Your task to perform on an android device: delete browsing data in the chrome app Image 0: 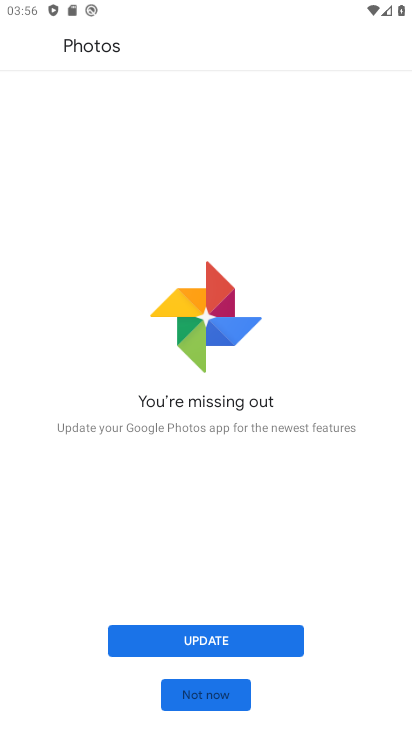
Step 0: press home button
Your task to perform on an android device: delete browsing data in the chrome app Image 1: 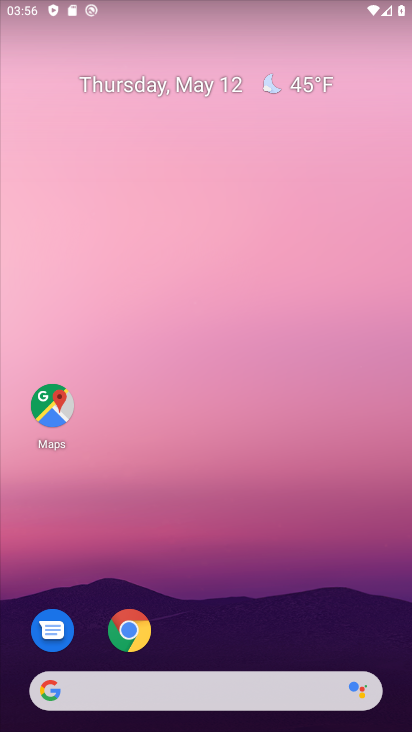
Step 1: drag from (234, 619) to (228, 159)
Your task to perform on an android device: delete browsing data in the chrome app Image 2: 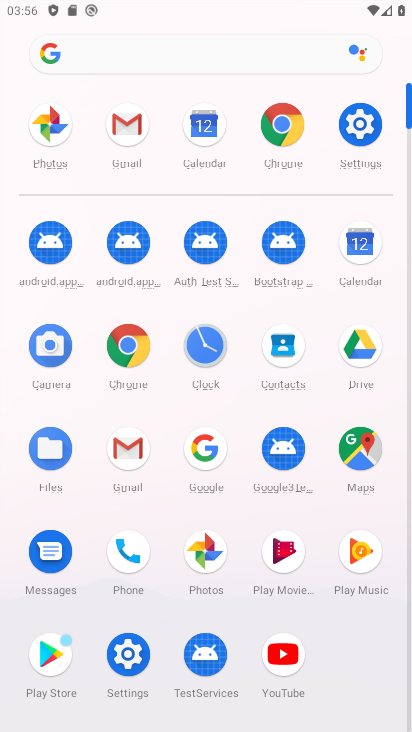
Step 2: click (128, 338)
Your task to perform on an android device: delete browsing data in the chrome app Image 3: 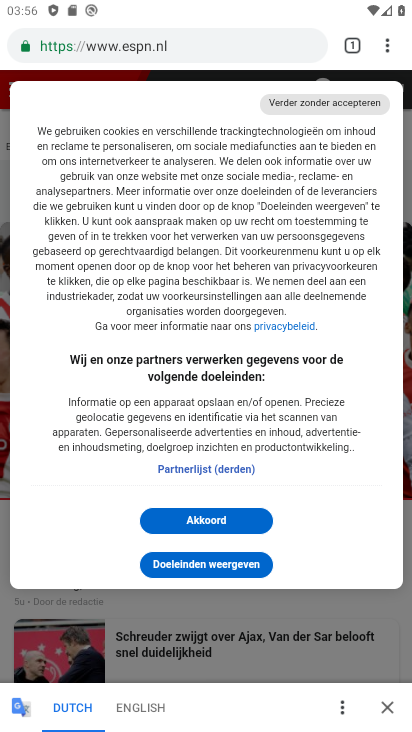
Step 3: click (384, 54)
Your task to perform on an android device: delete browsing data in the chrome app Image 4: 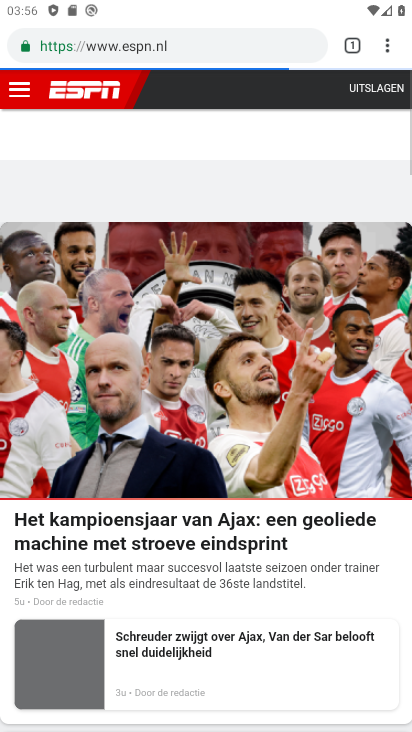
Step 4: click (390, 43)
Your task to perform on an android device: delete browsing data in the chrome app Image 5: 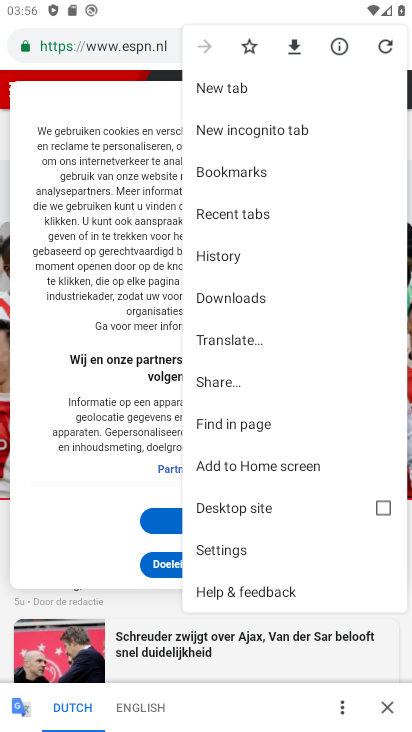
Step 5: click (203, 544)
Your task to perform on an android device: delete browsing data in the chrome app Image 6: 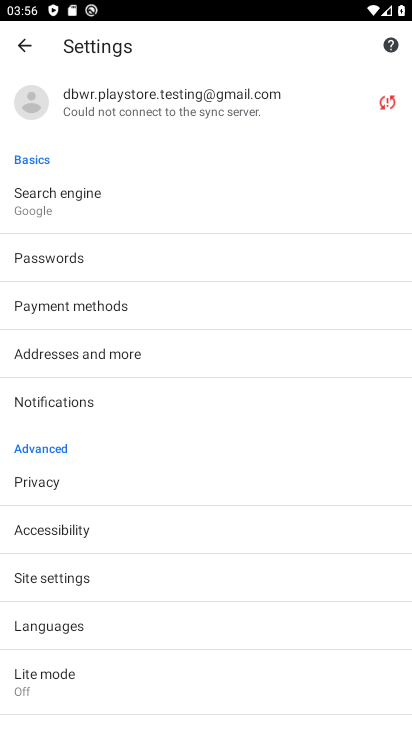
Step 6: click (21, 33)
Your task to perform on an android device: delete browsing data in the chrome app Image 7: 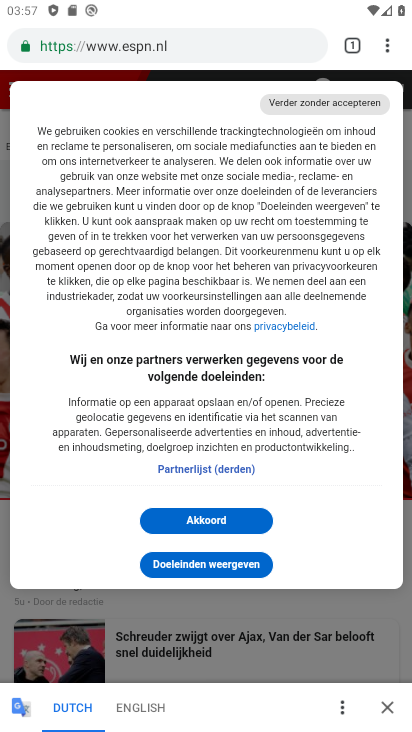
Step 7: click (391, 43)
Your task to perform on an android device: delete browsing data in the chrome app Image 8: 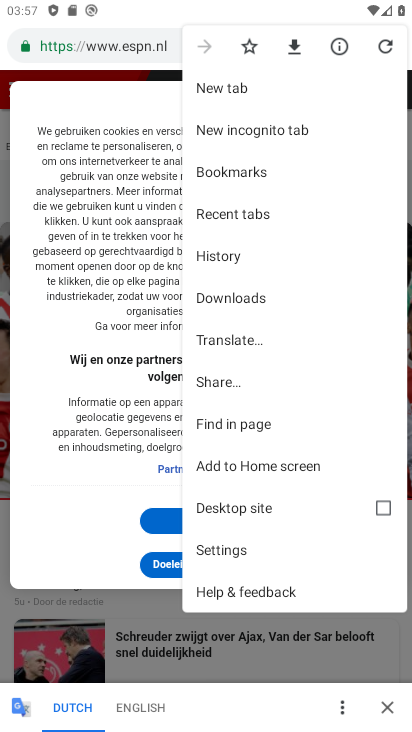
Step 8: click (233, 247)
Your task to perform on an android device: delete browsing data in the chrome app Image 9: 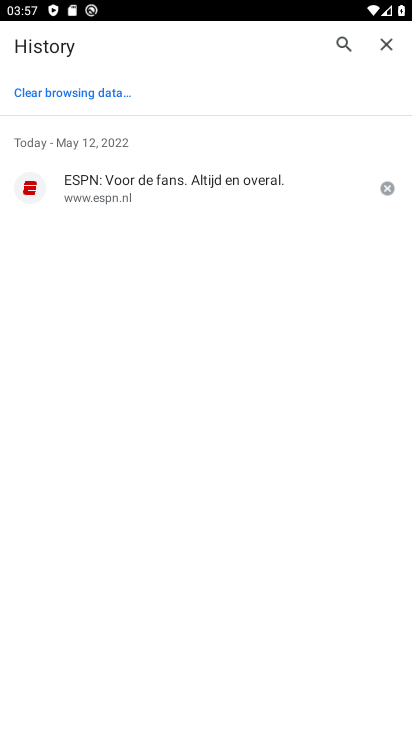
Step 9: click (38, 99)
Your task to perform on an android device: delete browsing data in the chrome app Image 10: 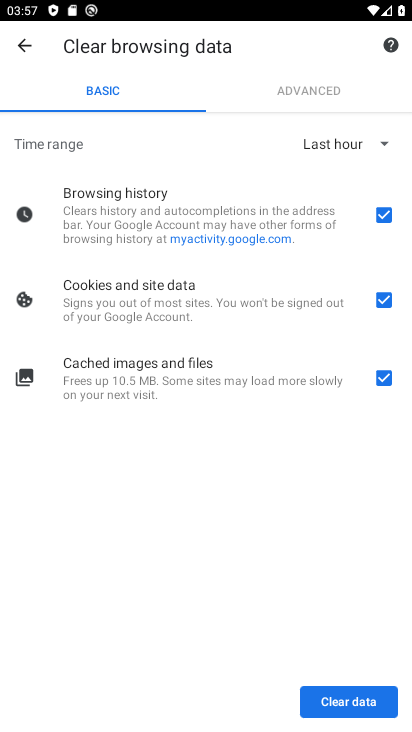
Step 10: click (345, 709)
Your task to perform on an android device: delete browsing data in the chrome app Image 11: 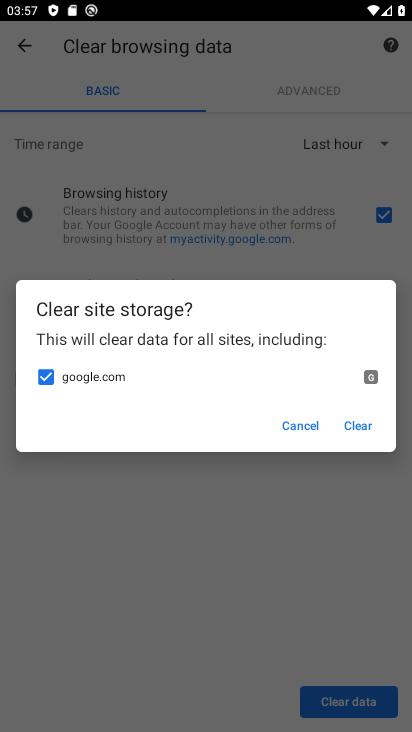
Step 11: click (358, 417)
Your task to perform on an android device: delete browsing data in the chrome app Image 12: 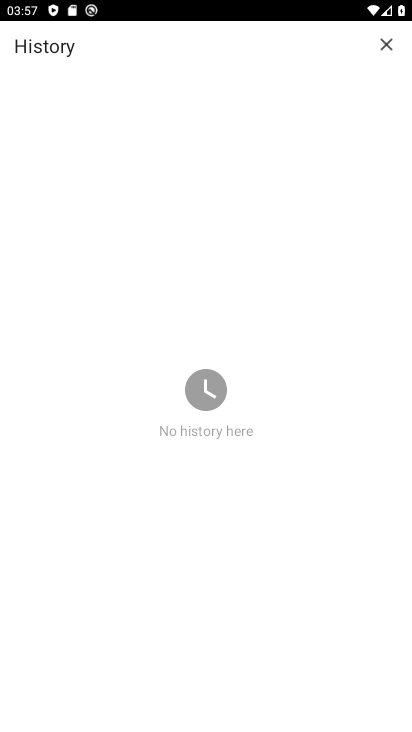
Step 12: task complete